Your task to perform on an android device: Show me popular games on the Play Store Image 0: 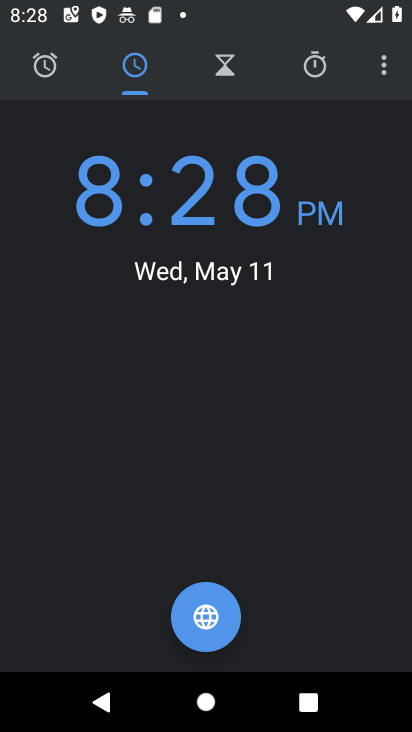
Step 0: press home button
Your task to perform on an android device: Show me popular games on the Play Store Image 1: 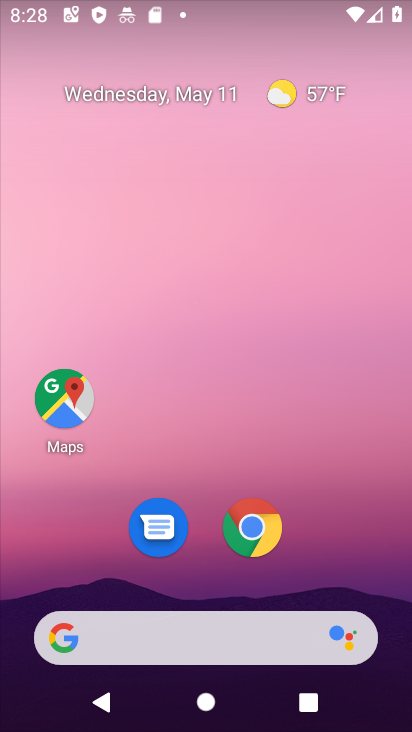
Step 1: drag from (351, 541) to (349, 15)
Your task to perform on an android device: Show me popular games on the Play Store Image 2: 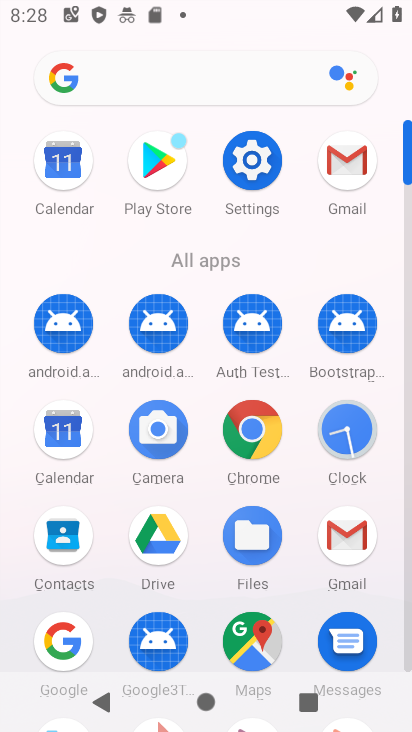
Step 2: click (155, 168)
Your task to perform on an android device: Show me popular games on the Play Store Image 3: 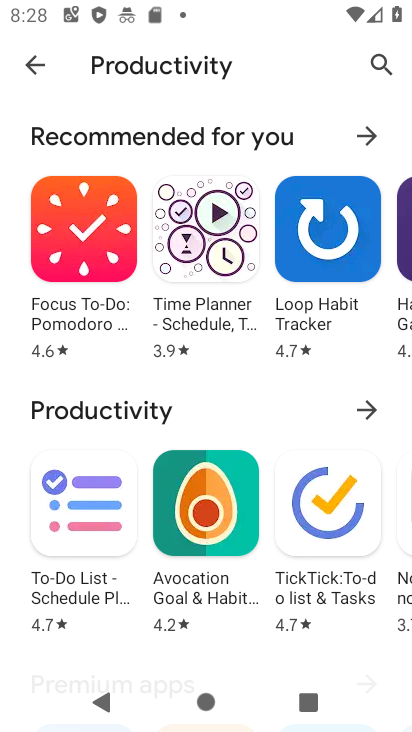
Step 3: press back button
Your task to perform on an android device: Show me popular games on the Play Store Image 4: 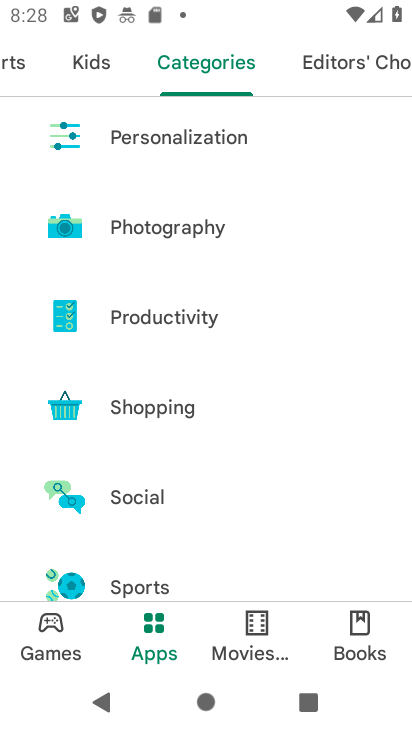
Step 4: click (39, 643)
Your task to perform on an android device: Show me popular games on the Play Store Image 5: 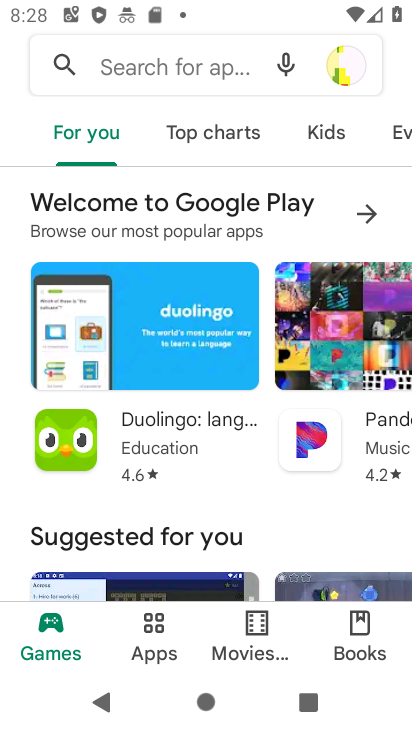
Step 5: drag from (190, 512) to (193, 194)
Your task to perform on an android device: Show me popular games on the Play Store Image 6: 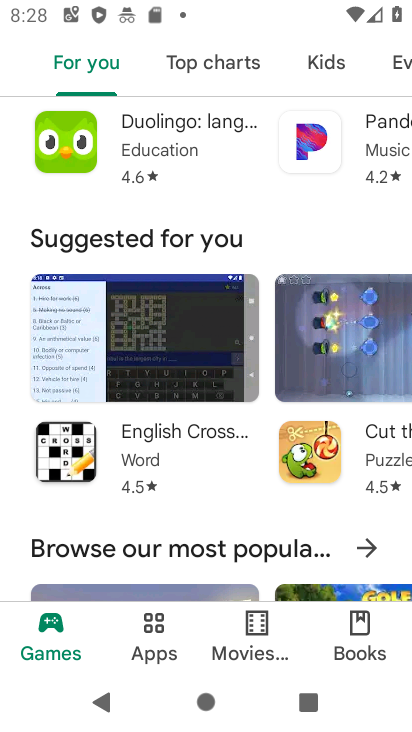
Step 6: drag from (235, 279) to (235, 155)
Your task to perform on an android device: Show me popular games on the Play Store Image 7: 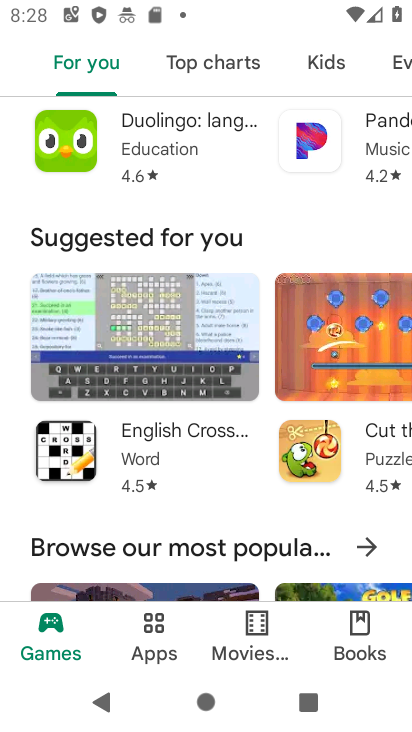
Step 7: drag from (157, 527) to (157, 177)
Your task to perform on an android device: Show me popular games on the Play Store Image 8: 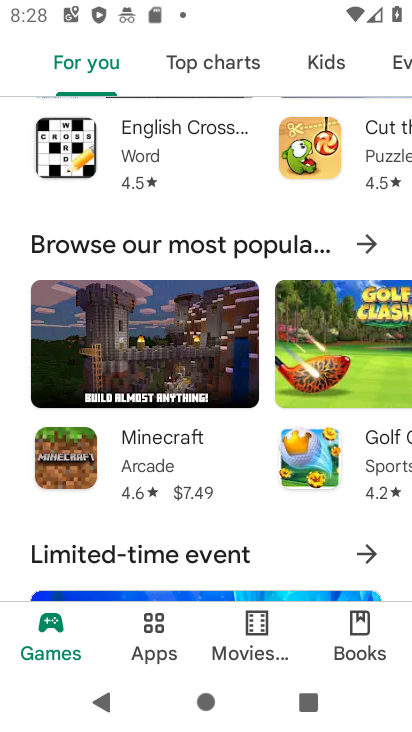
Step 8: click (245, 256)
Your task to perform on an android device: Show me popular games on the Play Store Image 9: 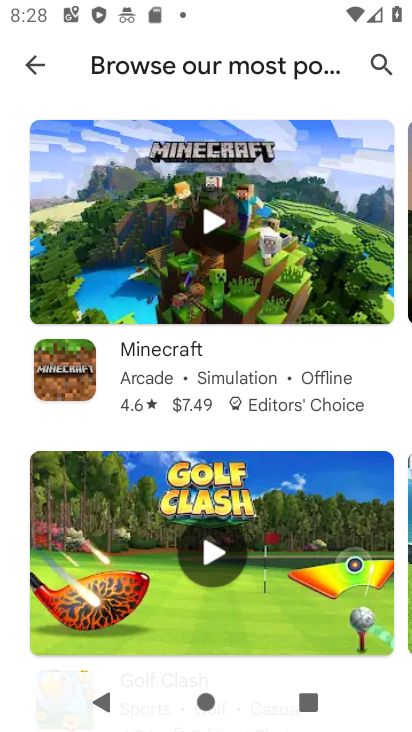
Step 9: task complete